Your task to perform on an android device: toggle wifi Image 0: 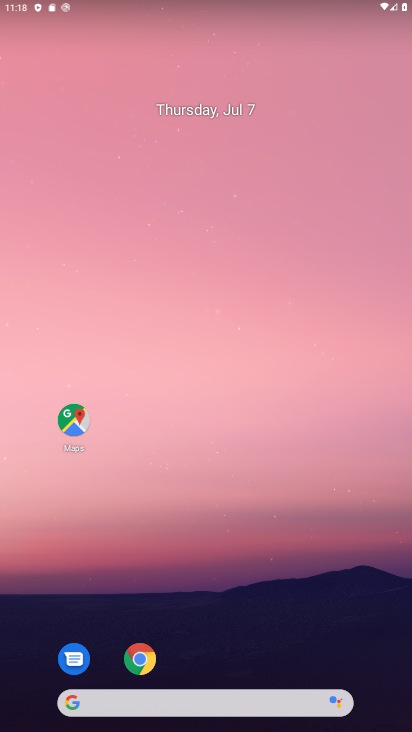
Step 0: drag from (168, 6) to (242, 671)
Your task to perform on an android device: toggle wifi Image 1: 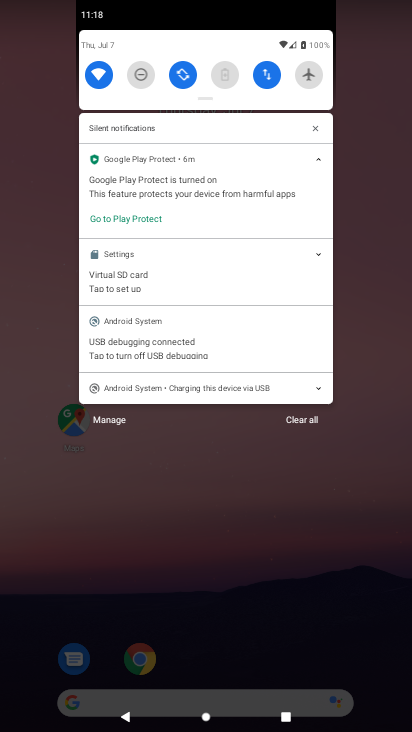
Step 1: click (107, 63)
Your task to perform on an android device: toggle wifi Image 2: 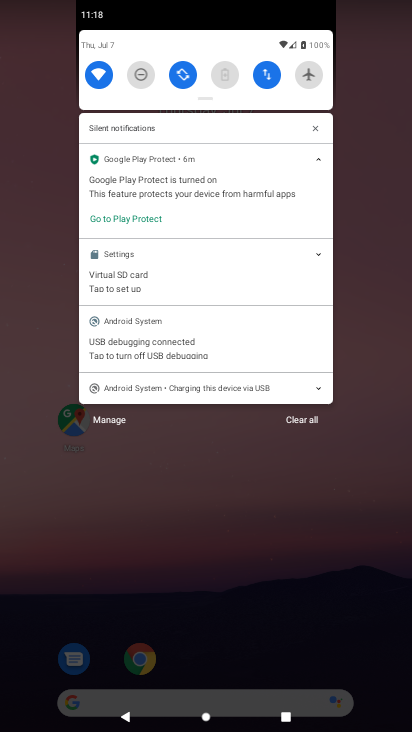
Step 2: click (107, 63)
Your task to perform on an android device: toggle wifi Image 3: 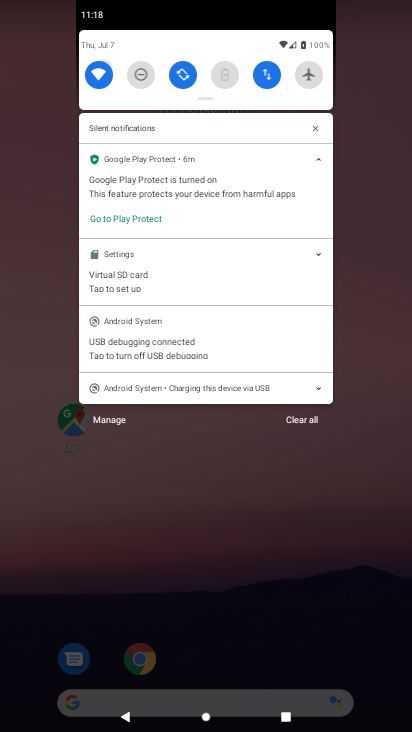
Step 3: click (107, 63)
Your task to perform on an android device: toggle wifi Image 4: 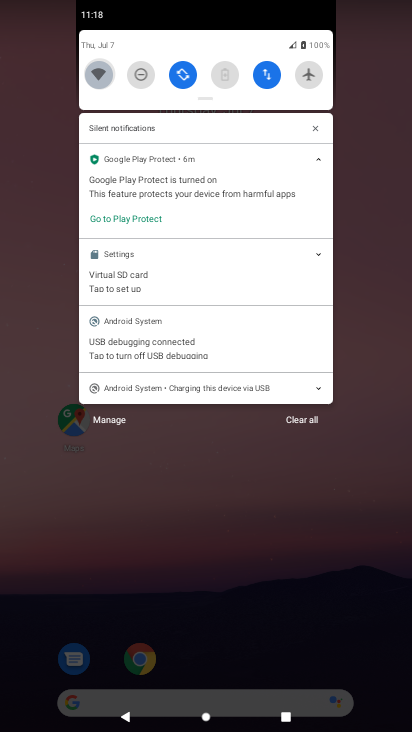
Step 4: click (107, 63)
Your task to perform on an android device: toggle wifi Image 5: 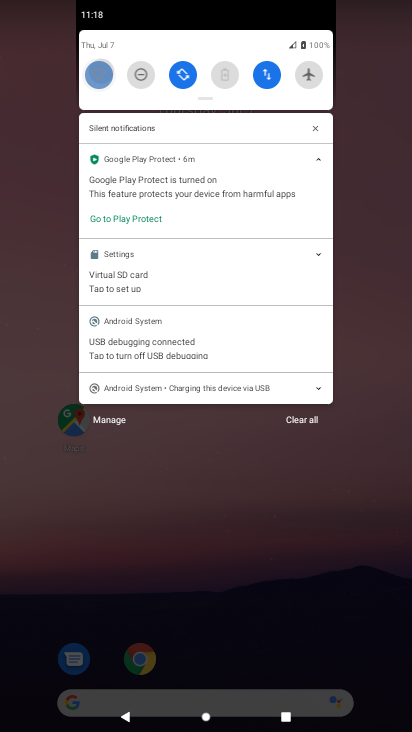
Step 5: click (107, 63)
Your task to perform on an android device: toggle wifi Image 6: 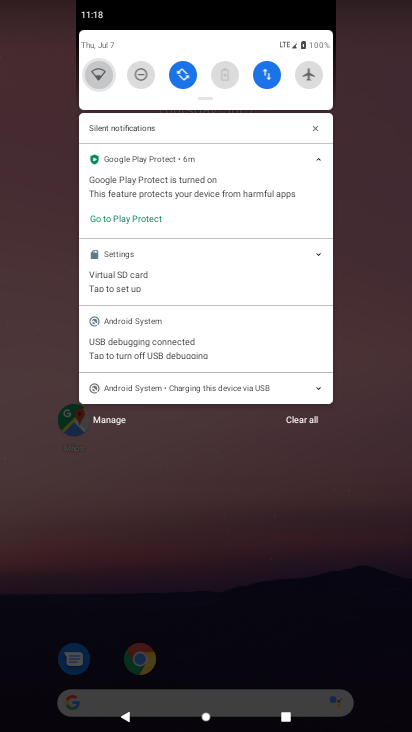
Step 6: click (103, 73)
Your task to perform on an android device: toggle wifi Image 7: 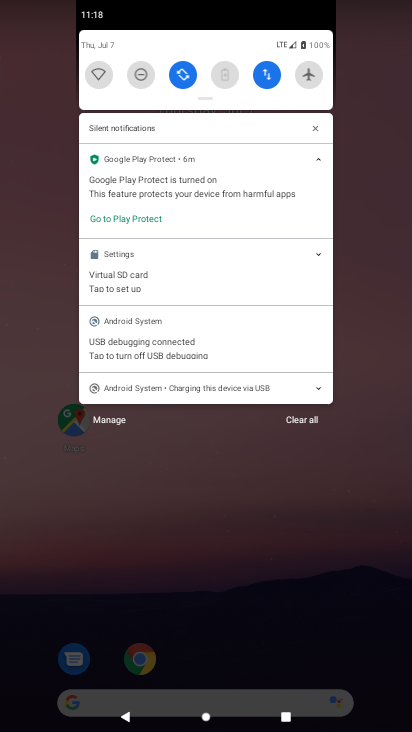
Step 7: click (103, 73)
Your task to perform on an android device: toggle wifi Image 8: 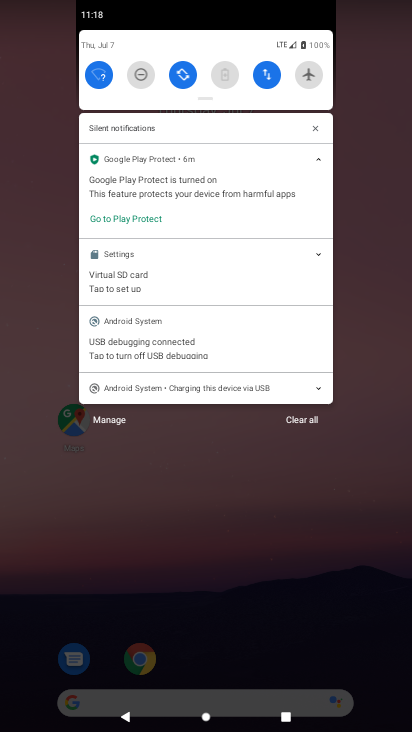
Step 8: task complete